Your task to perform on an android device: What's the weather today? Image 0: 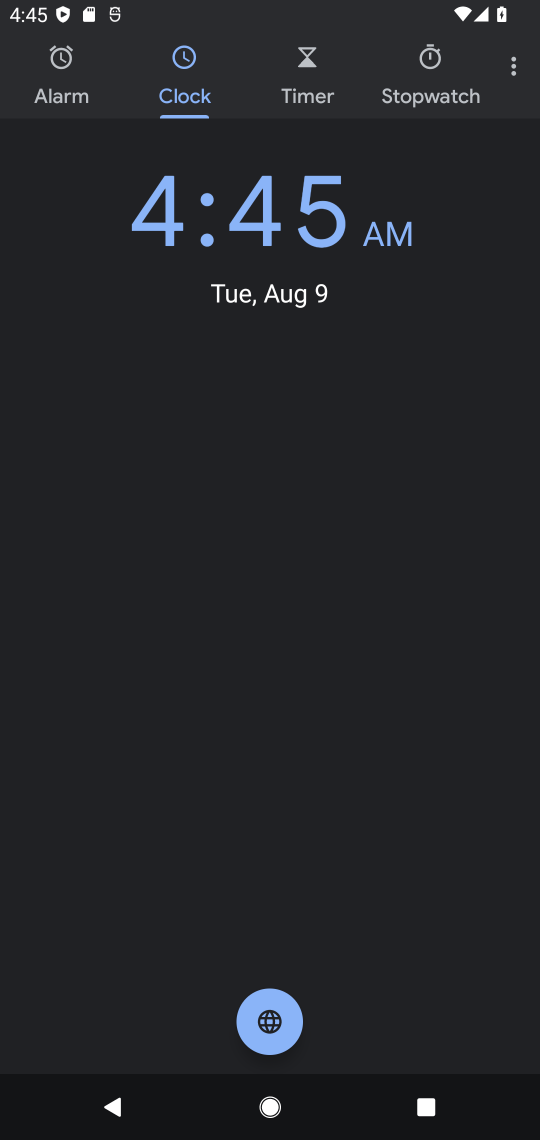
Step 0: press home button
Your task to perform on an android device: What's the weather today? Image 1: 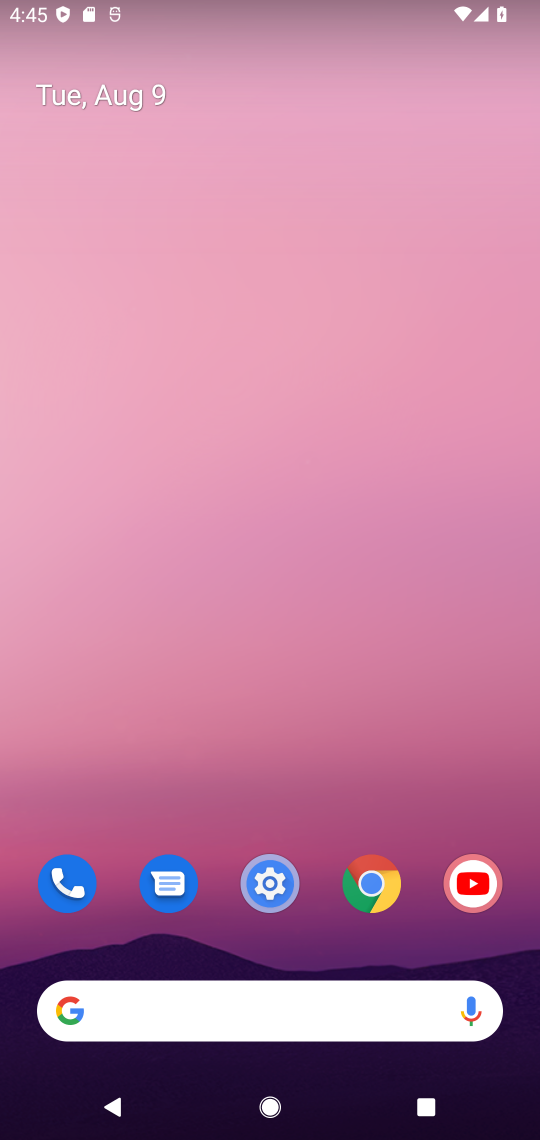
Step 1: drag from (269, 702) to (264, 302)
Your task to perform on an android device: What's the weather today? Image 2: 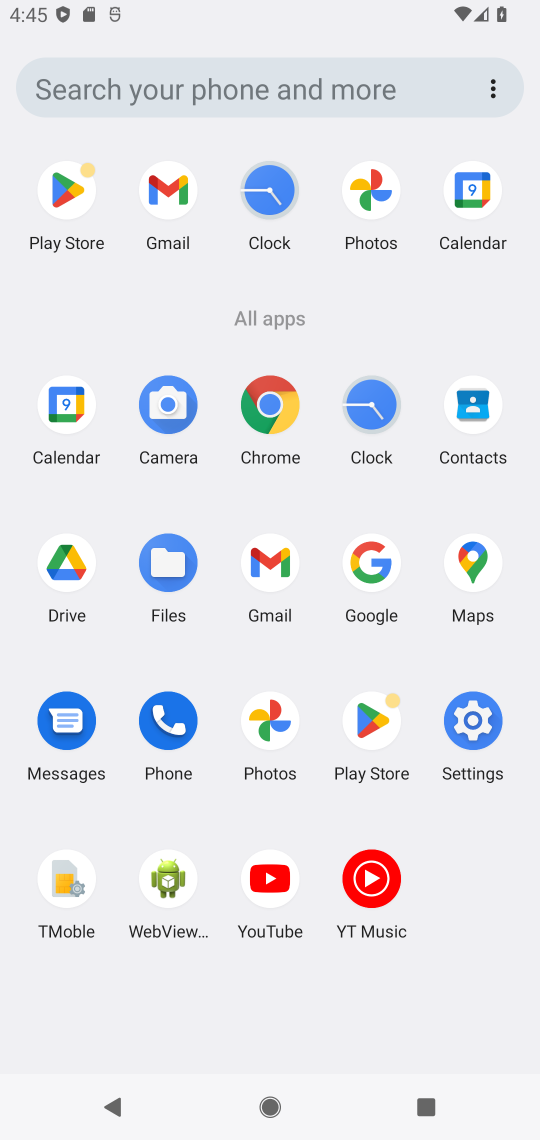
Step 2: click (363, 587)
Your task to perform on an android device: What's the weather today? Image 3: 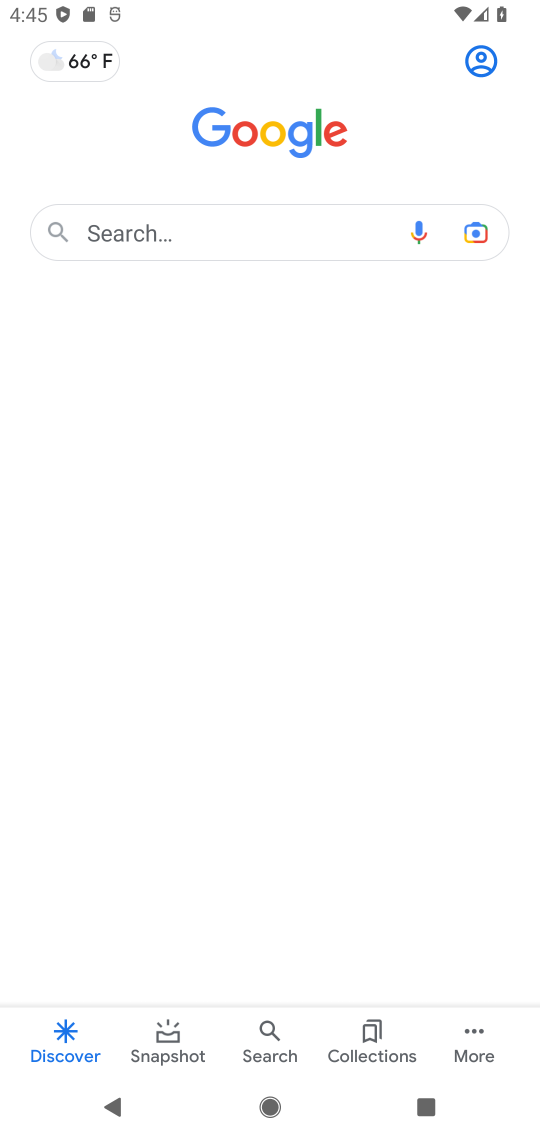
Step 3: click (175, 248)
Your task to perform on an android device: What's the weather today? Image 4: 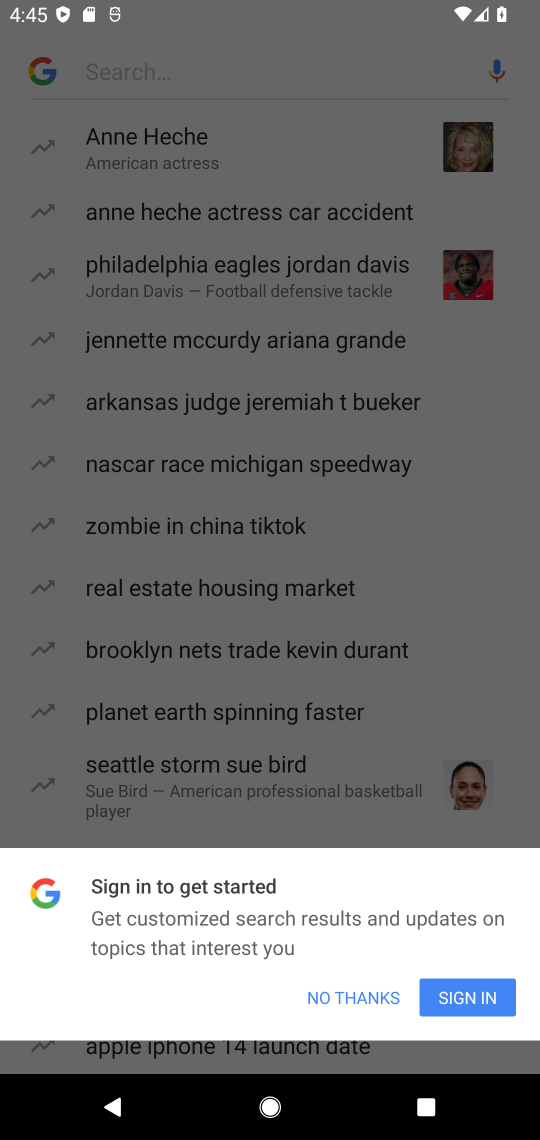
Step 4: type "weather"
Your task to perform on an android device: What's the weather today? Image 5: 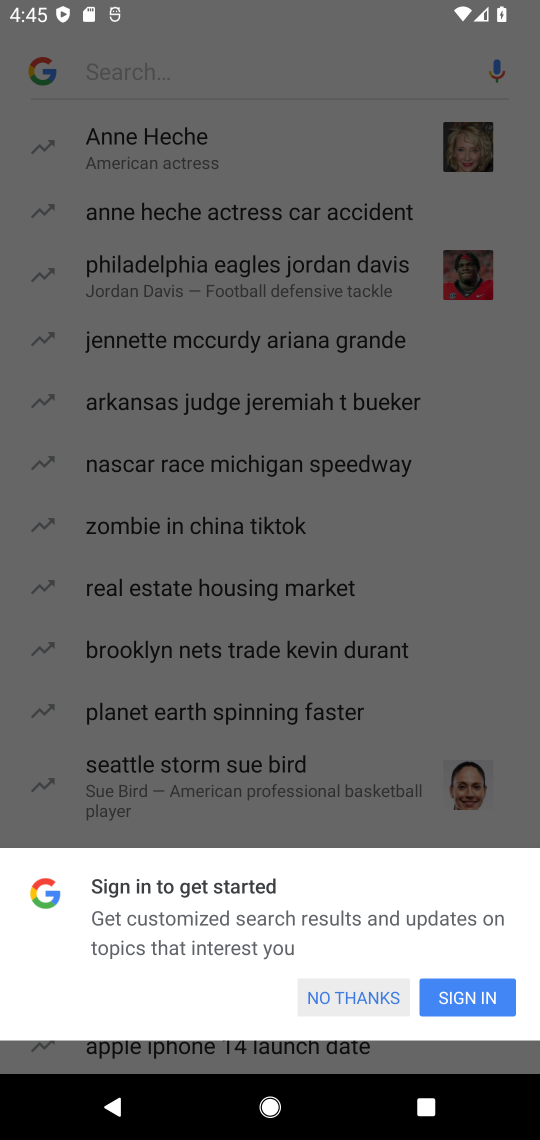
Step 5: click (364, 987)
Your task to perform on an android device: What's the weather today? Image 6: 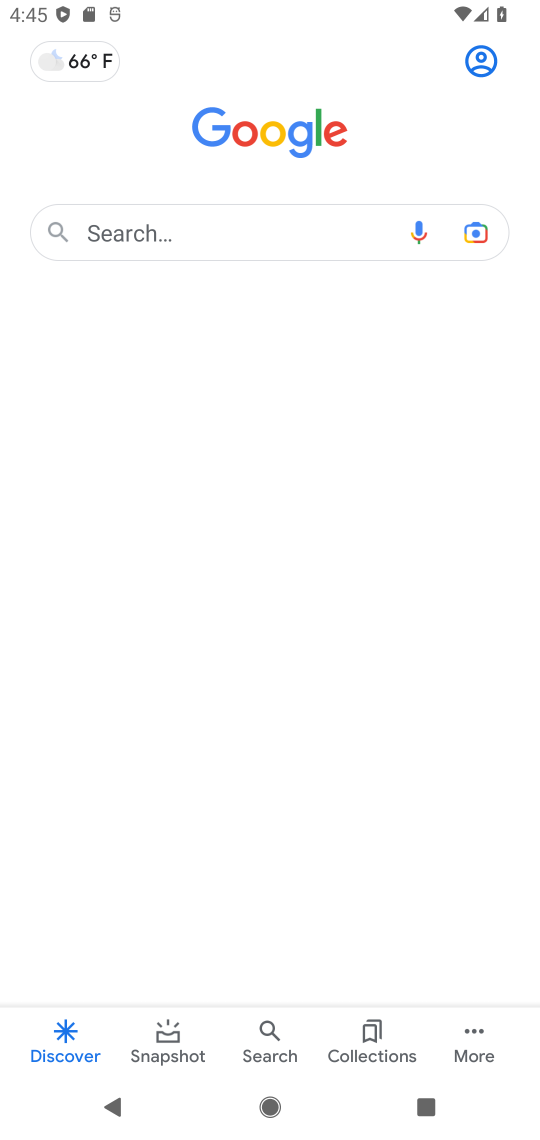
Step 6: click (207, 239)
Your task to perform on an android device: What's the weather today? Image 7: 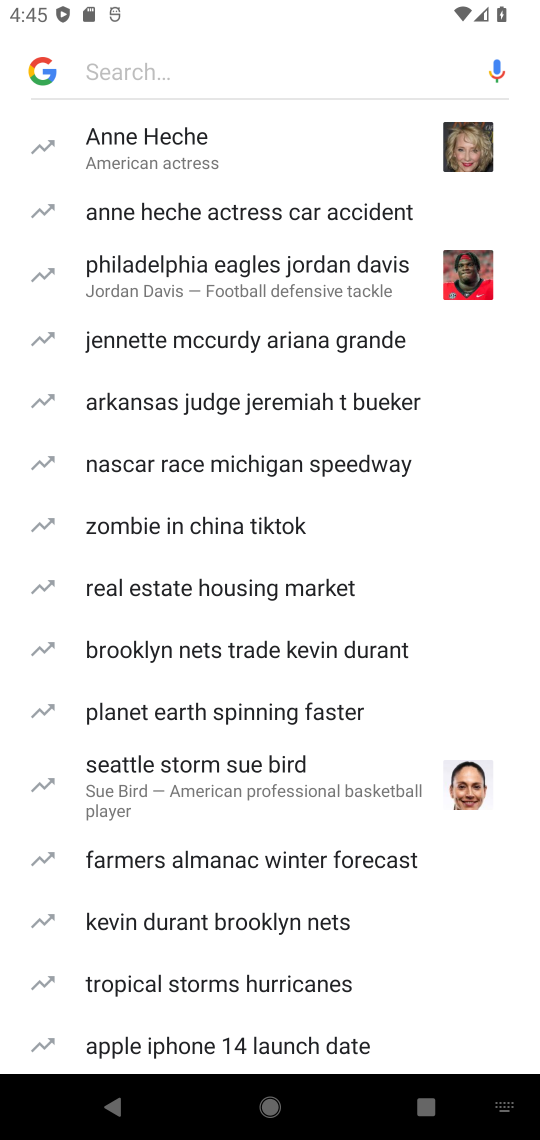
Step 7: type "weather"
Your task to perform on an android device: What's the weather today? Image 8: 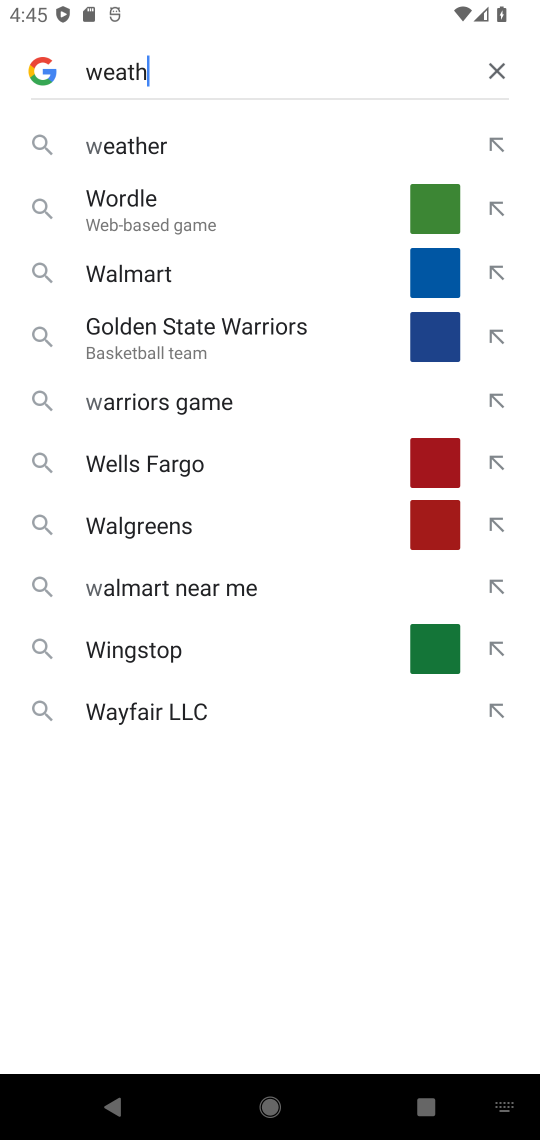
Step 8: type ""
Your task to perform on an android device: What's the weather today? Image 9: 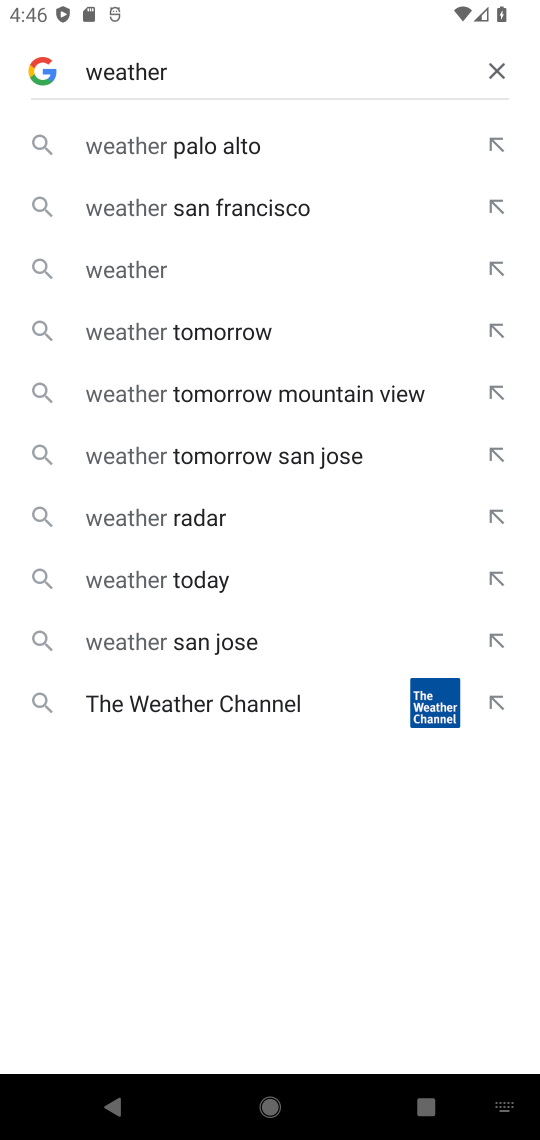
Step 9: click (158, 270)
Your task to perform on an android device: What's the weather today? Image 10: 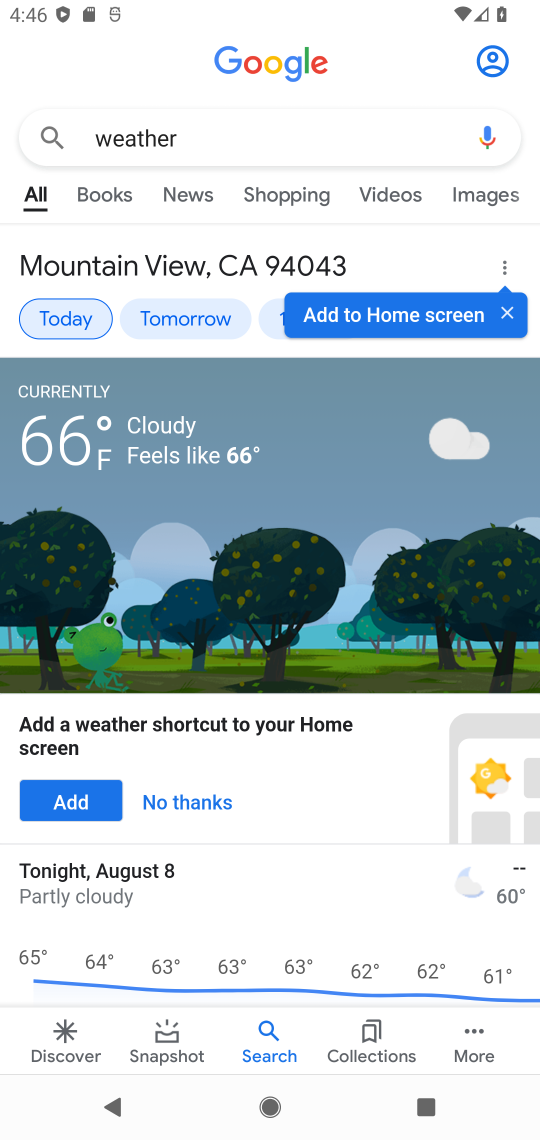
Step 10: task complete